Your task to perform on an android device: change your default location settings in chrome Image 0: 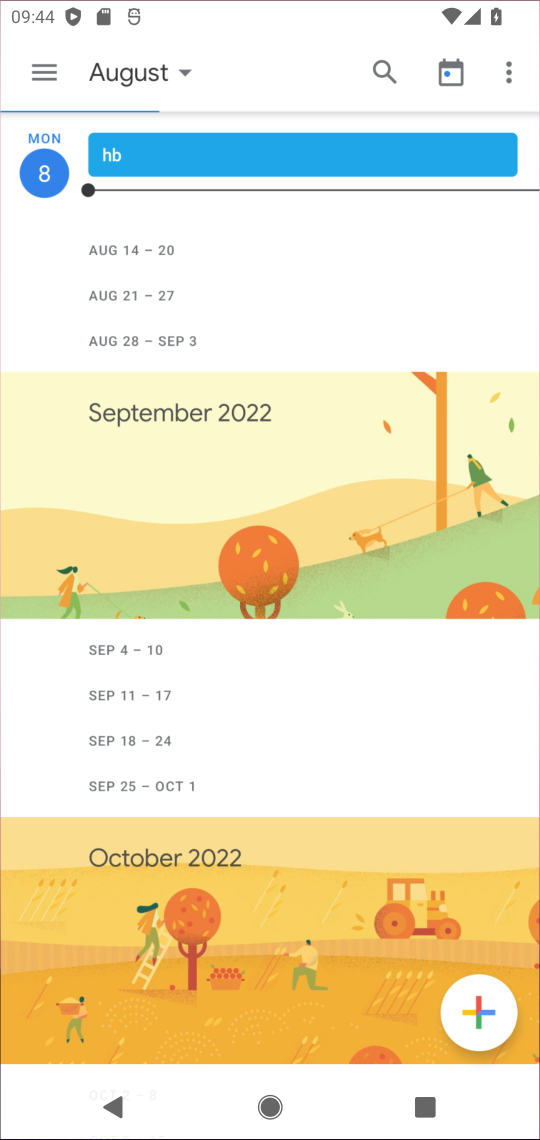
Step 0: press home button
Your task to perform on an android device: change your default location settings in chrome Image 1: 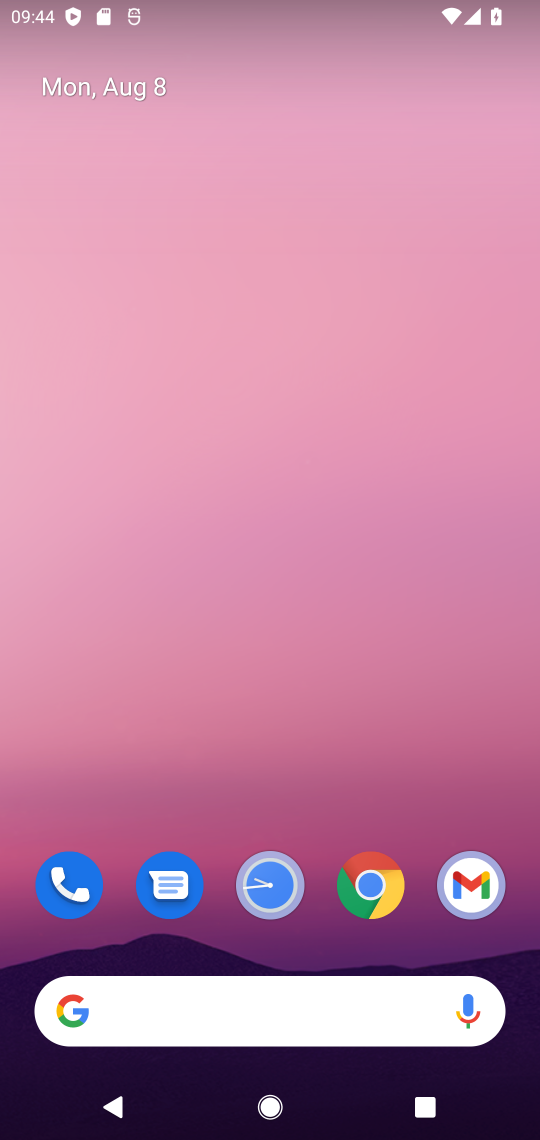
Step 1: drag from (271, 937) to (339, 89)
Your task to perform on an android device: change your default location settings in chrome Image 2: 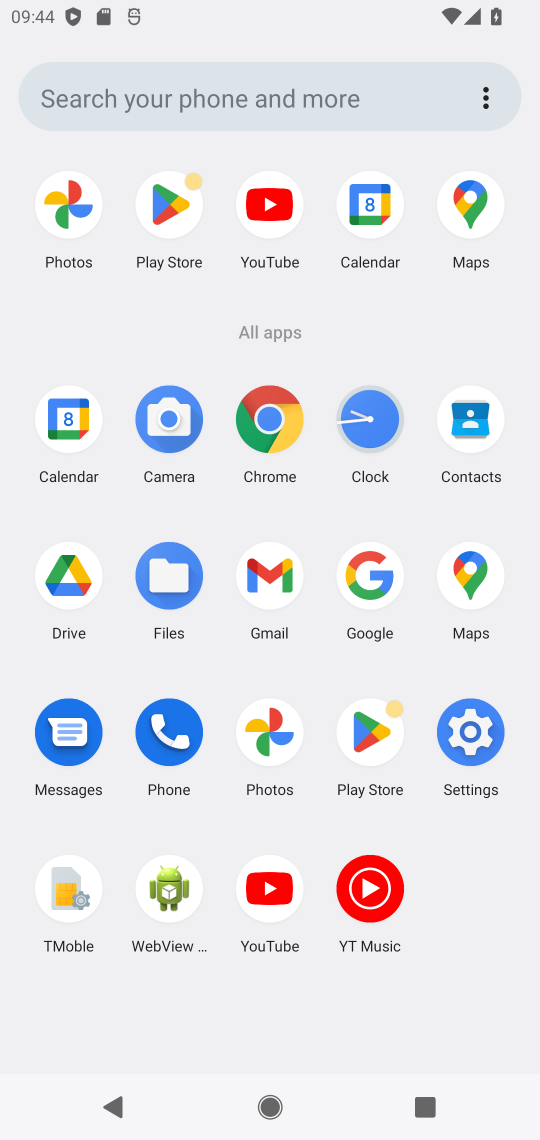
Step 2: click (280, 415)
Your task to perform on an android device: change your default location settings in chrome Image 3: 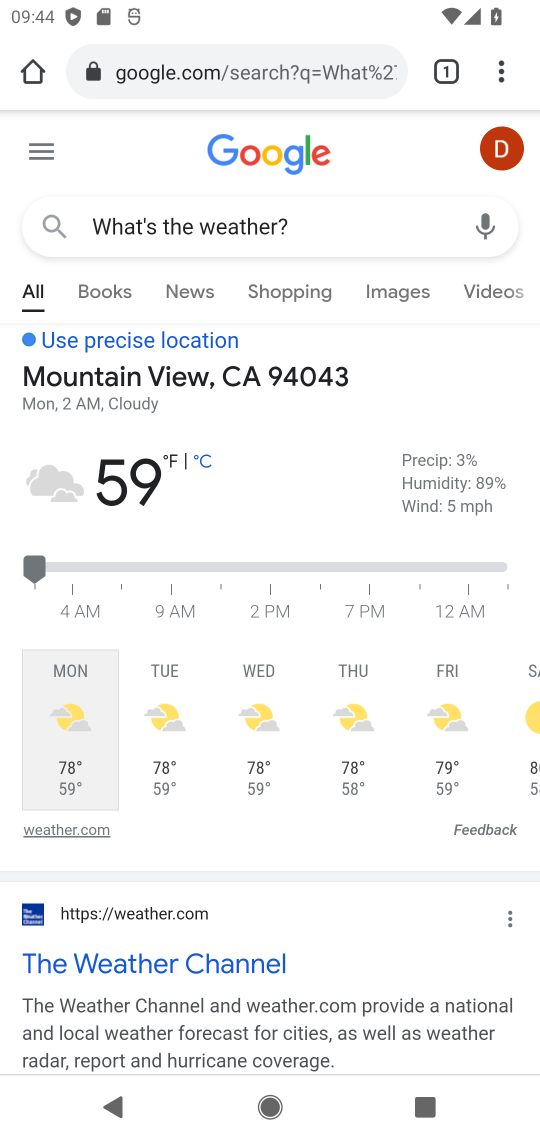
Step 3: press home button
Your task to perform on an android device: change your default location settings in chrome Image 4: 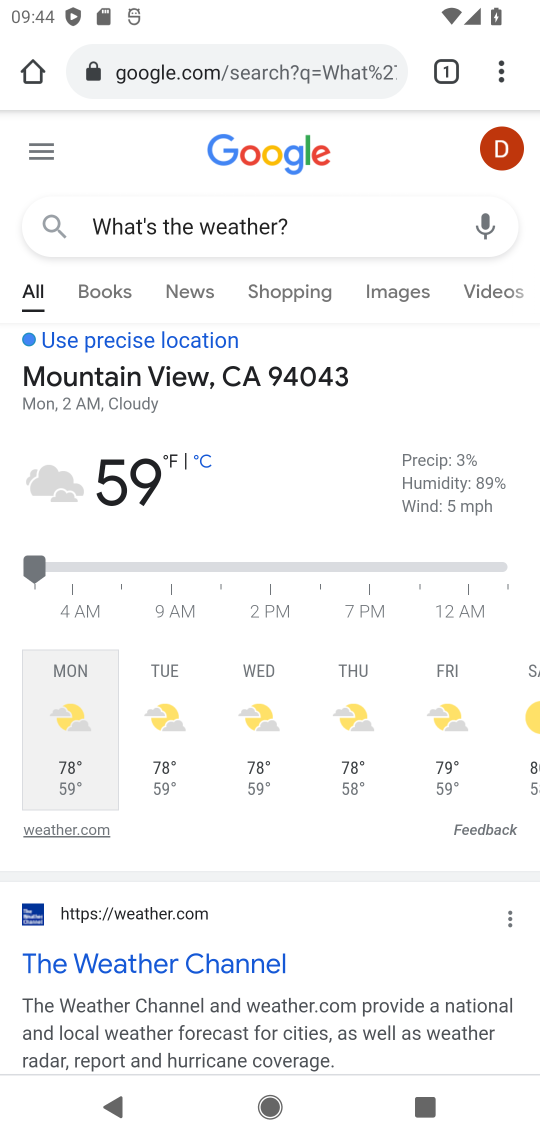
Step 4: press home button
Your task to perform on an android device: change your default location settings in chrome Image 5: 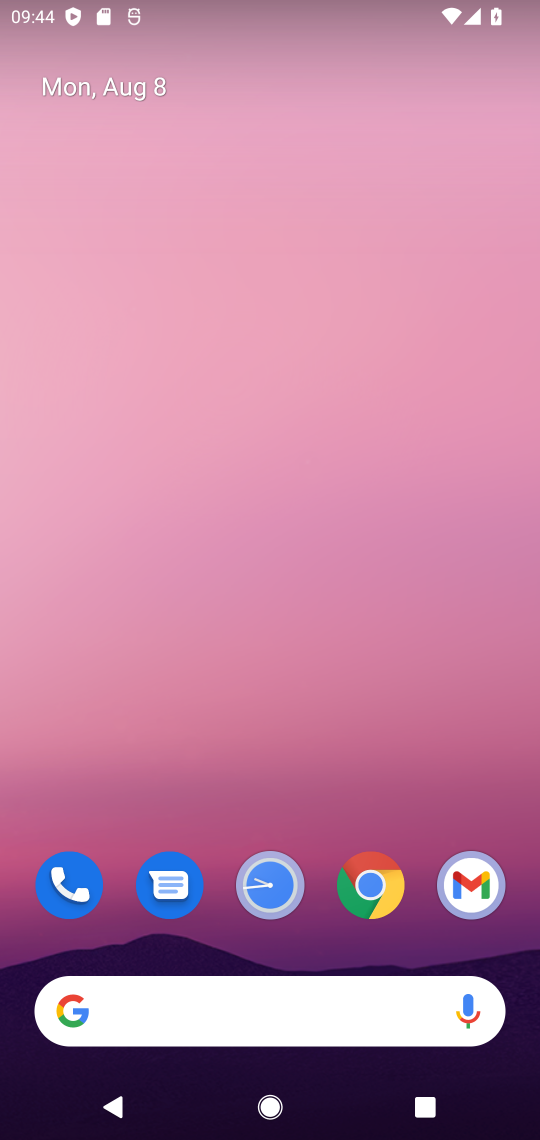
Step 5: click (382, 889)
Your task to perform on an android device: change your default location settings in chrome Image 6: 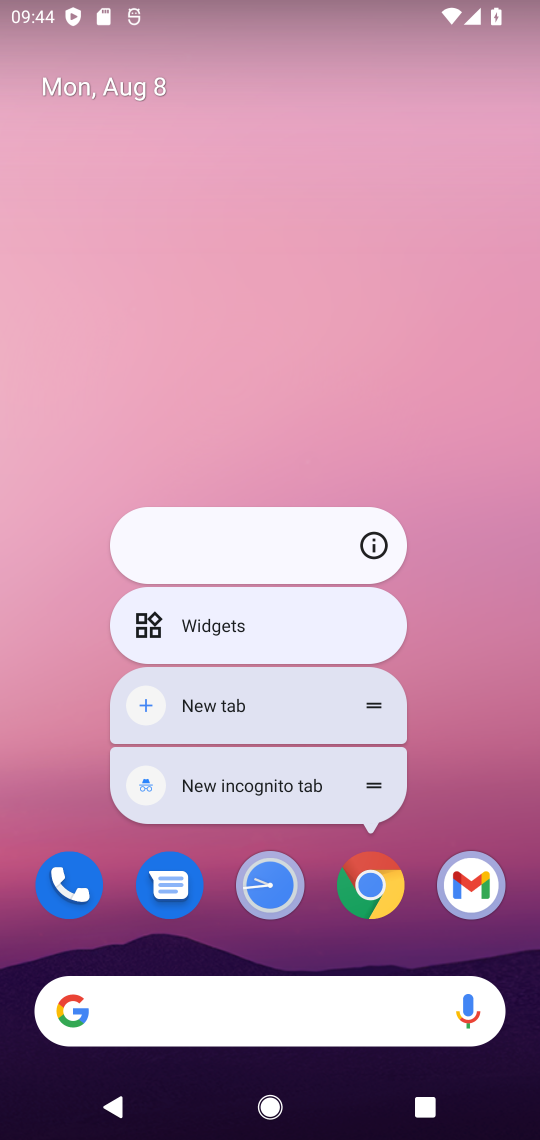
Step 6: click (378, 554)
Your task to perform on an android device: change your default location settings in chrome Image 7: 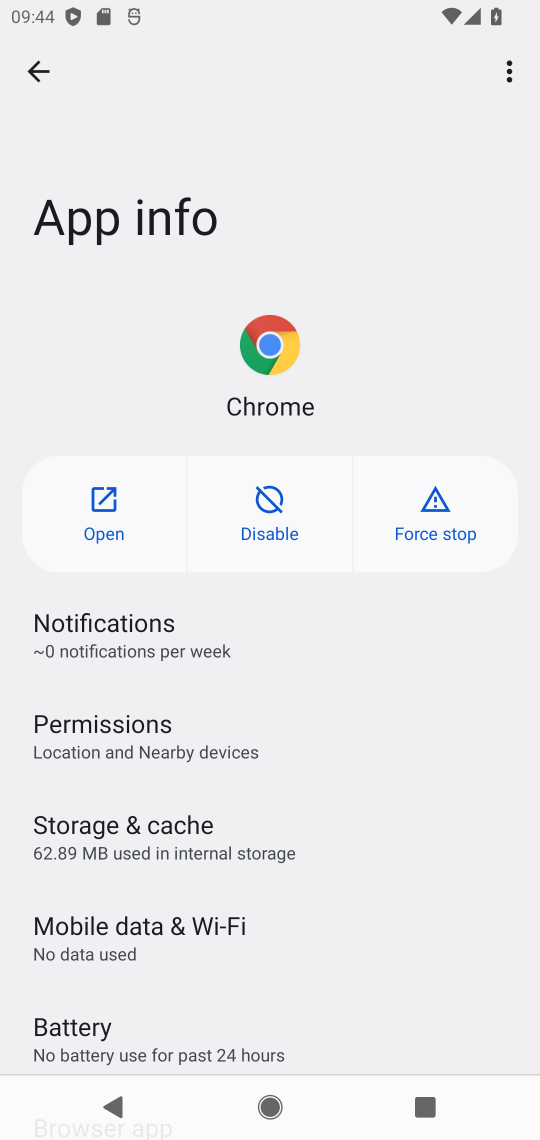
Step 7: click (257, 756)
Your task to perform on an android device: change your default location settings in chrome Image 8: 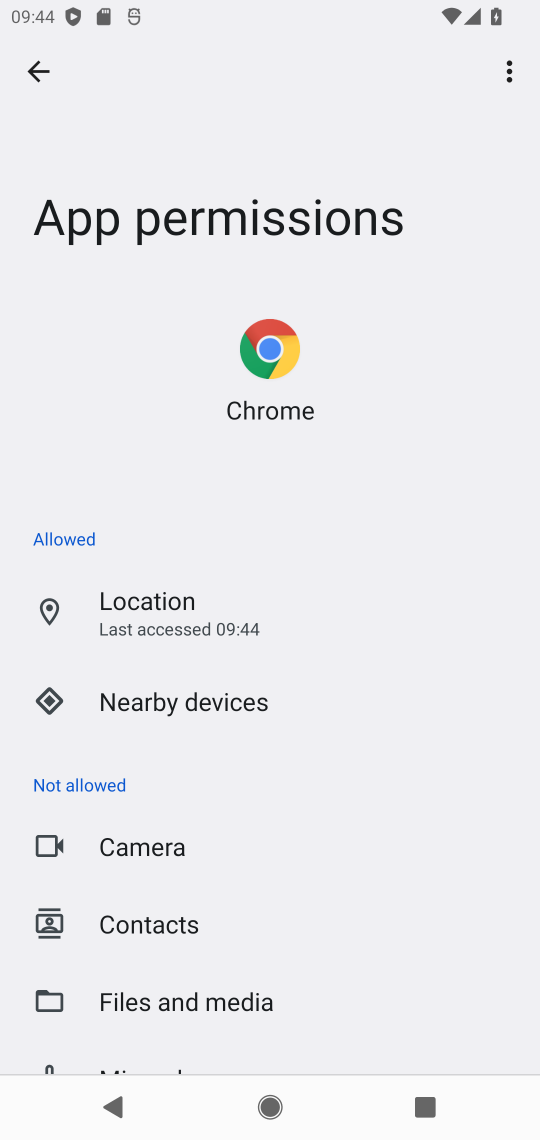
Step 8: drag from (210, 941) to (253, 991)
Your task to perform on an android device: change your default location settings in chrome Image 9: 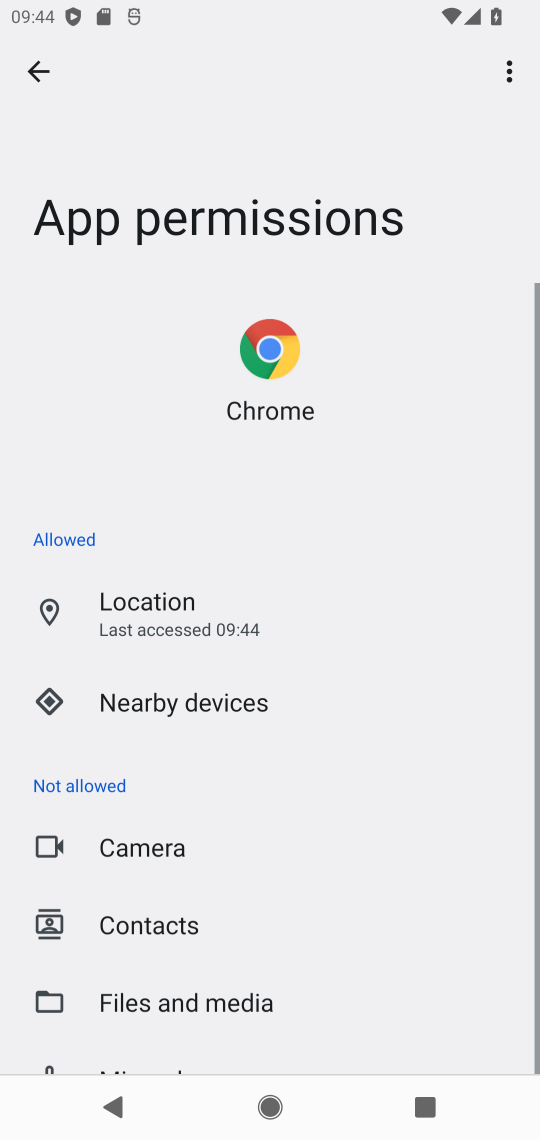
Step 9: click (218, 567)
Your task to perform on an android device: change your default location settings in chrome Image 10: 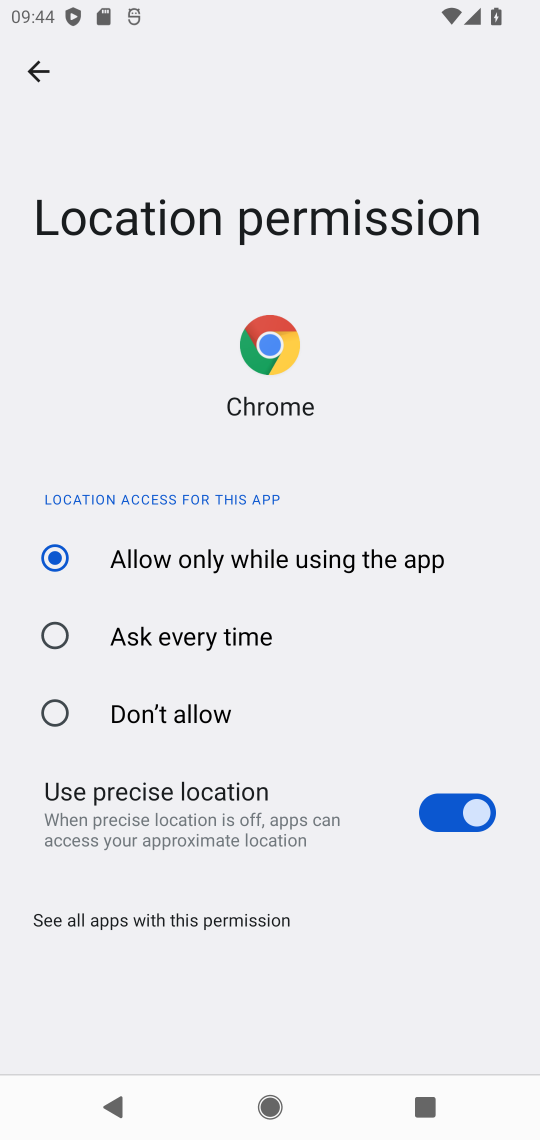
Step 10: click (227, 704)
Your task to perform on an android device: change your default location settings in chrome Image 11: 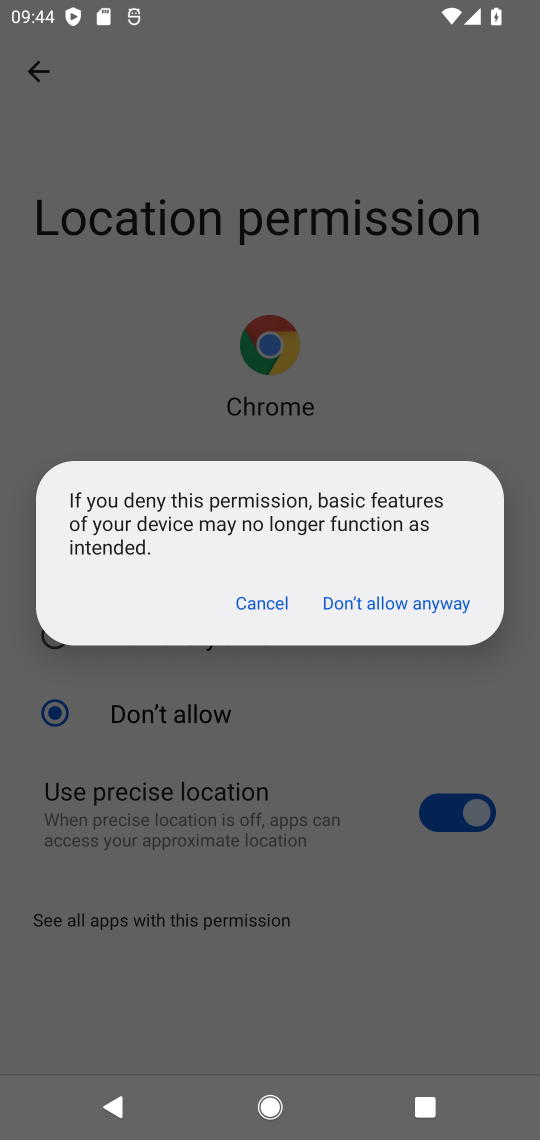
Step 11: click (372, 599)
Your task to perform on an android device: change your default location settings in chrome Image 12: 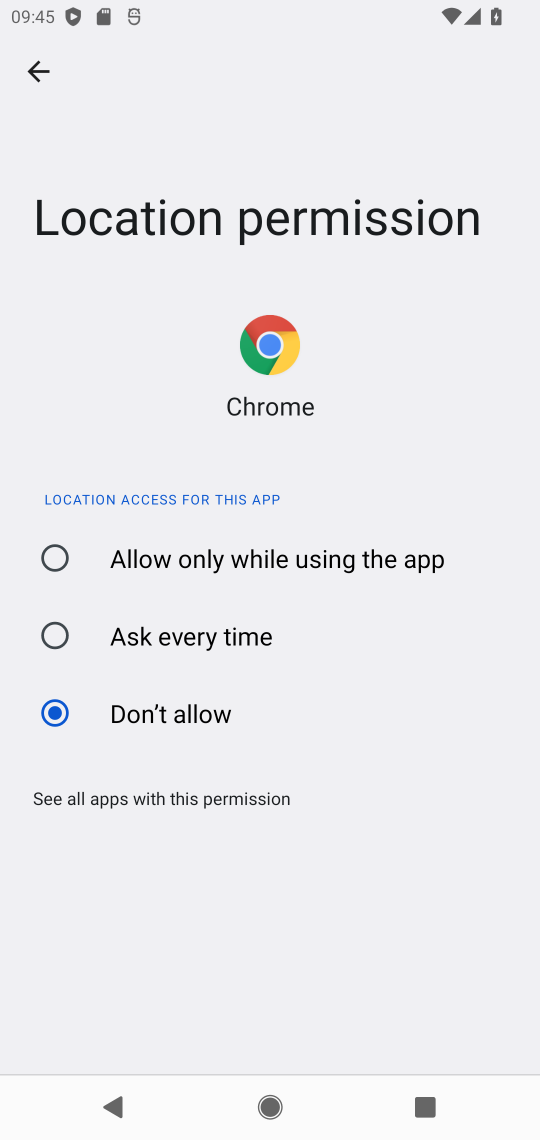
Step 12: task complete